Your task to perform on an android device: turn pop-ups off in chrome Image 0: 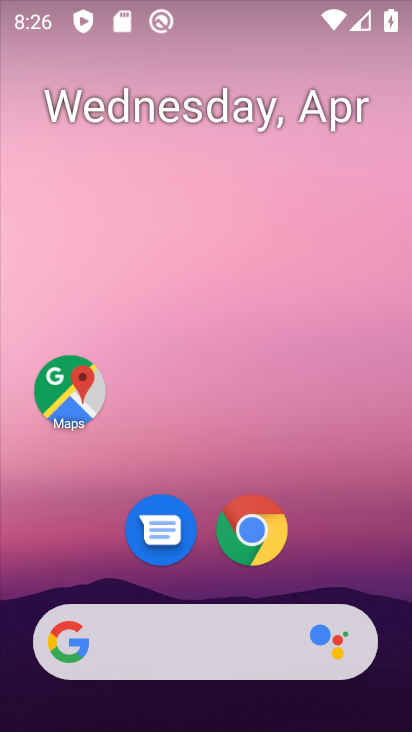
Step 0: drag from (398, 594) to (327, 244)
Your task to perform on an android device: turn pop-ups off in chrome Image 1: 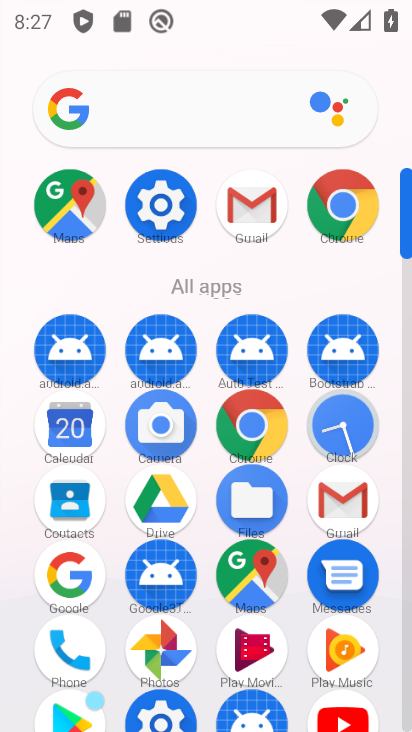
Step 1: click (345, 224)
Your task to perform on an android device: turn pop-ups off in chrome Image 2: 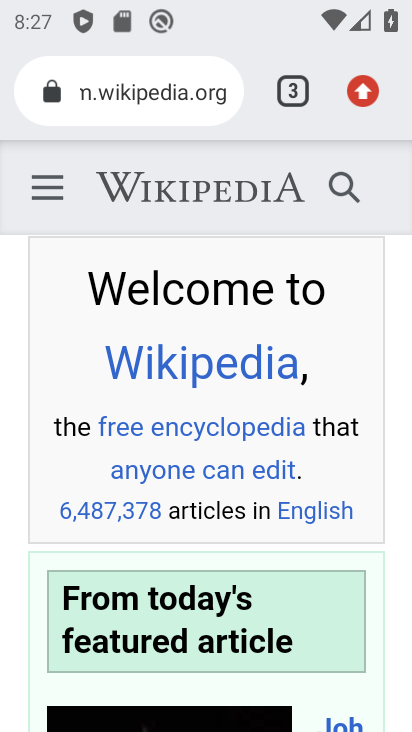
Step 2: drag from (353, 129) to (204, 586)
Your task to perform on an android device: turn pop-ups off in chrome Image 3: 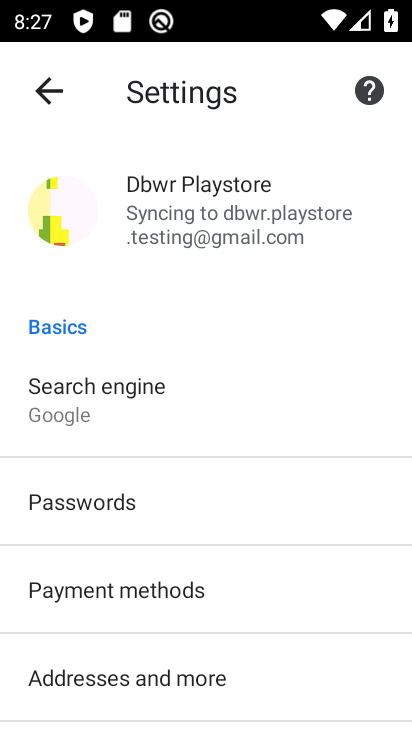
Step 3: drag from (307, 658) to (282, 276)
Your task to perform on an android device: turn pop-ups off in chrome Image 4: 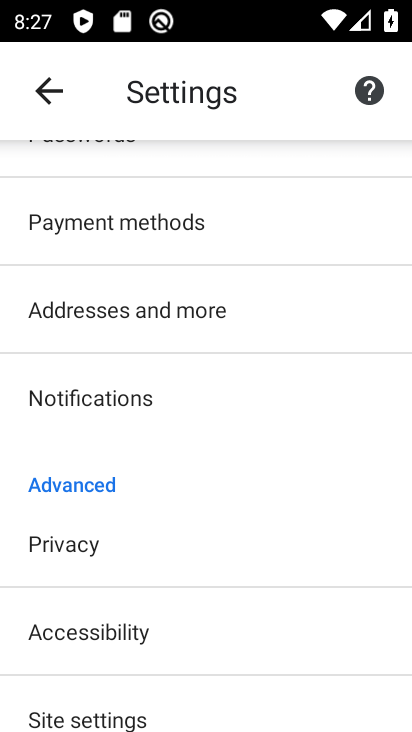
Step 4: drag from (286, 651) to (257, 302)
Your task to perform on an android device: turn pop-ups off in chrome Image 5: 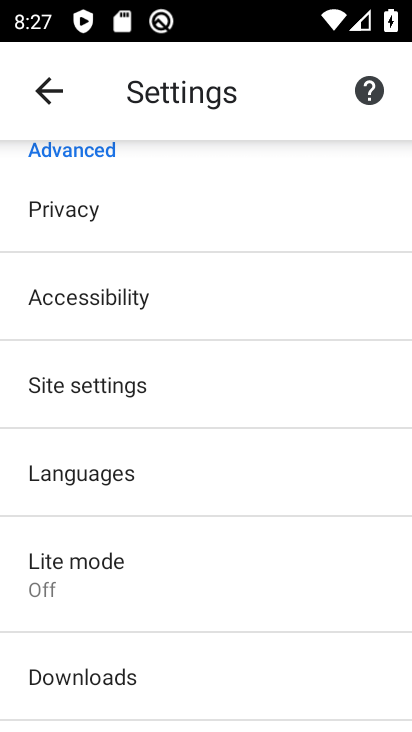
Step 5: drag from (262, 604) to (255, 479)
Your task to perform on an android device: turn pop-ups off in chrome Image 6: 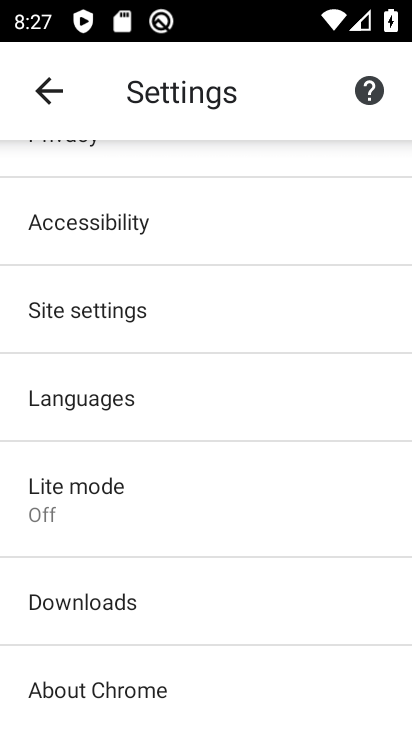
Step 6: click (247, 493)
Your task to perform on an android device: turn pop-ups off in chrome Image 7: 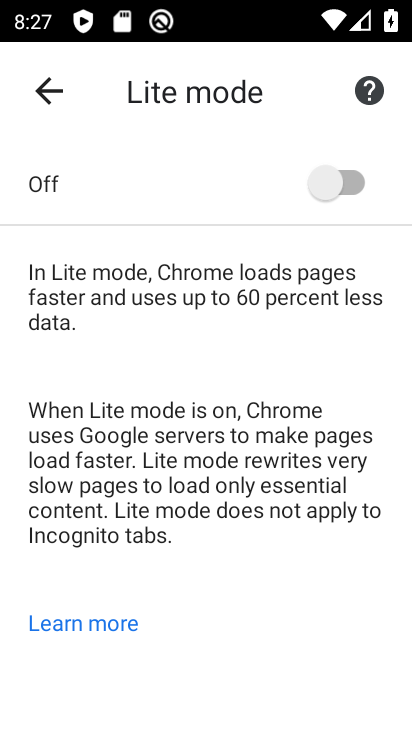
Step 7: task complete